Your task to perform on an android device: turn on javascript in the chrome app Image 0: 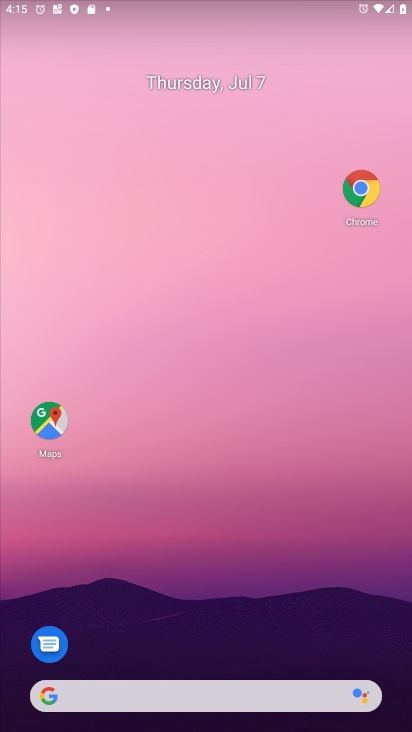
Step 0: press home button
Your task to perform on an android device: turn on javascript in the chrome app Image 1: 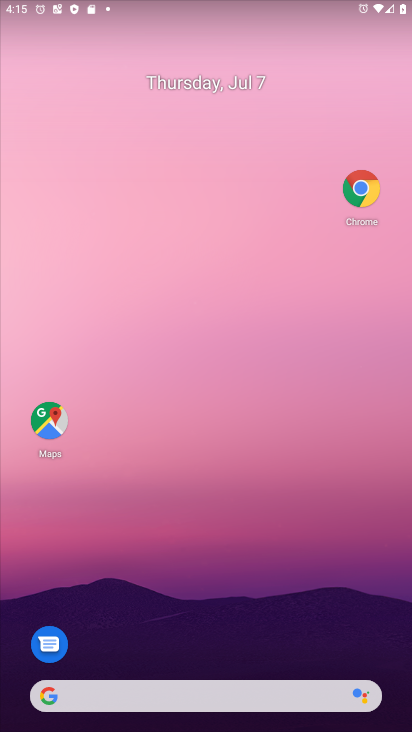
Step 1: click (233, 657)
Your task to perform on an android device: turn on javascript in the chrome app Image 2: 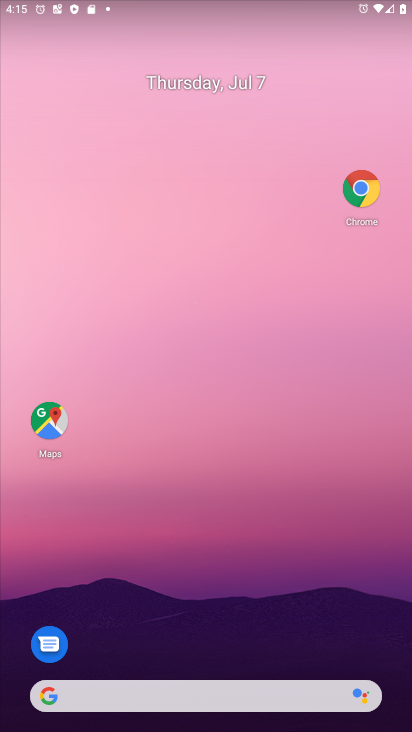
Step 2: click (354, 199)
Your task to perform on an android device: turn on javascript in the chrome app Image 3: 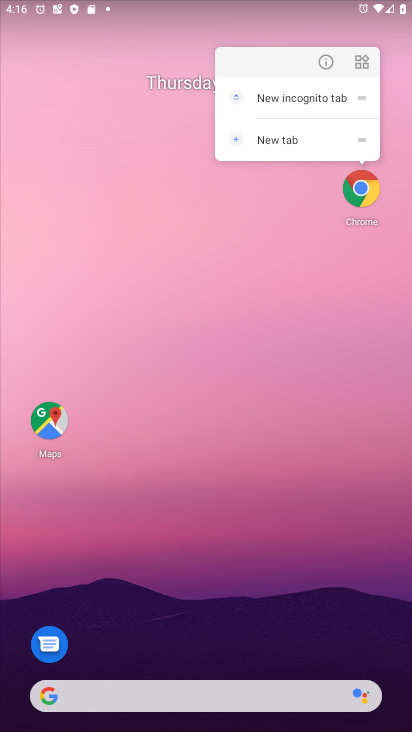
Step 3: click (354, 199)
Your task to perform on an android device: turn on javascript in the chrome app Image 4: 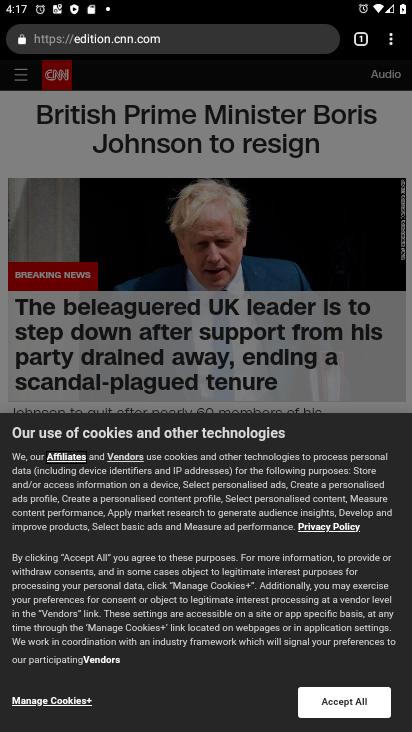
Step 4: drag from (388, 40) to (276, 467)
Your task to perform on an android device: turn on javascript in the chrome app Image 5: 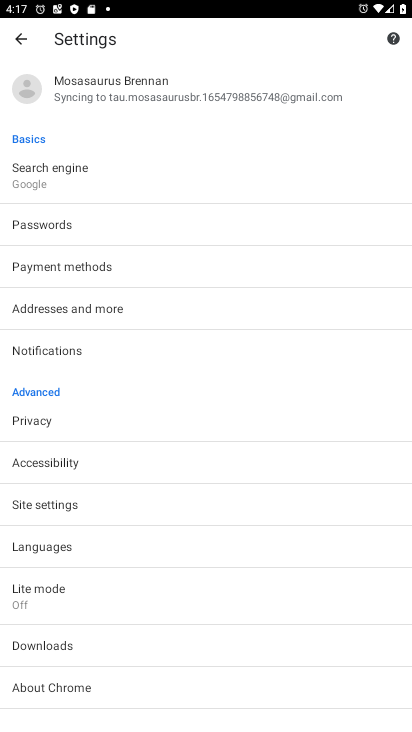
Step 5: drag from (205, 653) to (197, 291)
Your task to perform on an android device: turn on javascript in the chrome app Image 6: 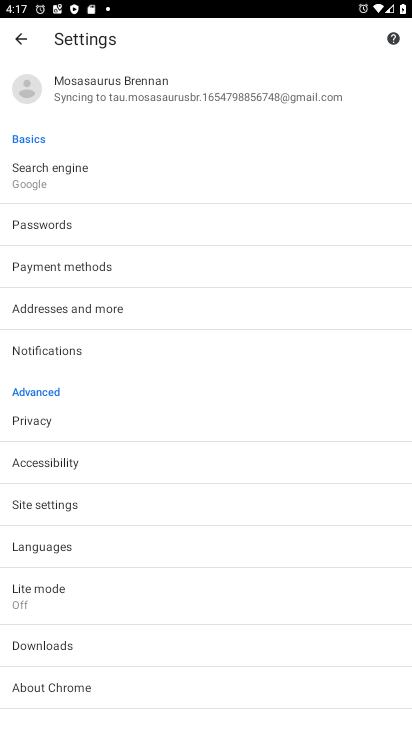
Step 6: click (78, 510)
Your task to perform on an android device: turn on javascript in the chrome app Image 7: 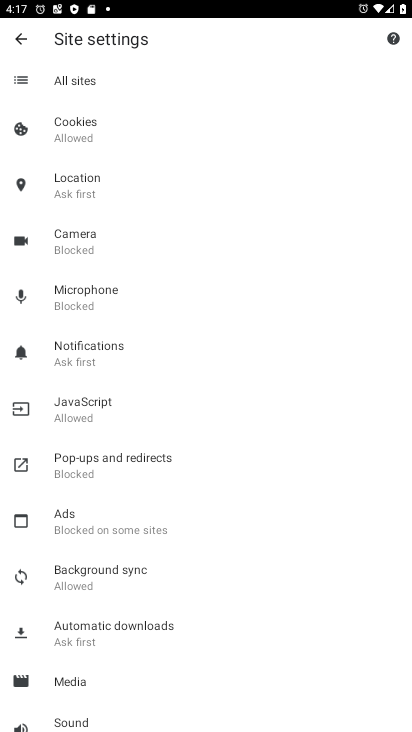
Step 7: click (87, 397)
Your task to perform on an android device: turn on javascript in the chrome app Image 8: 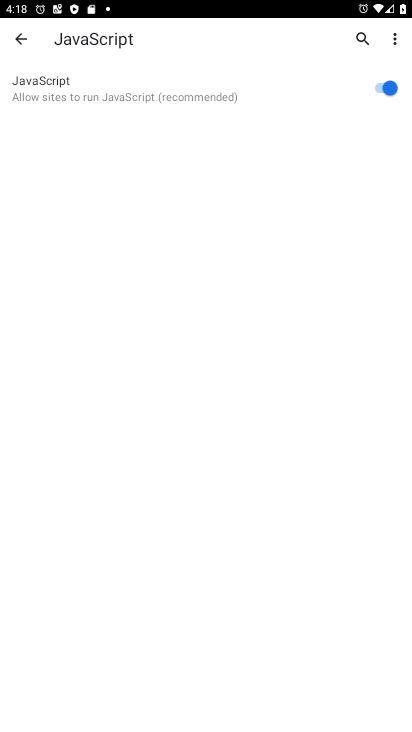
Step 8: task complete